Your task to perform on an android device: Open ESPN.com Image 0: 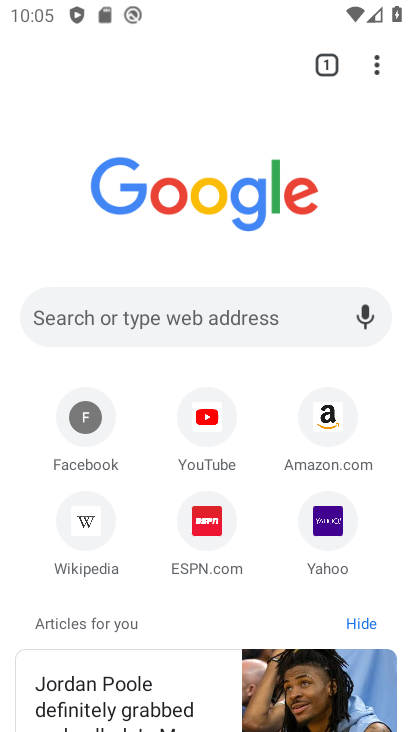
Step 0: click (221, 518)
Your task to perform on an android device: Open ESPN.com Image 1: 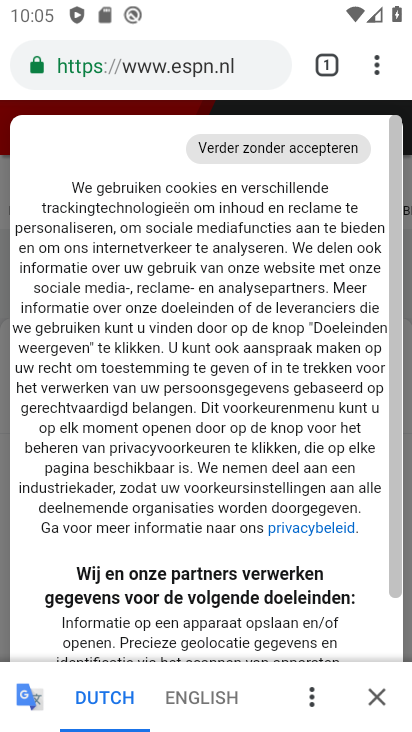
Step 1: task complete